Your task to perform on an android device: turn off data saver in the chrome app Image 0: 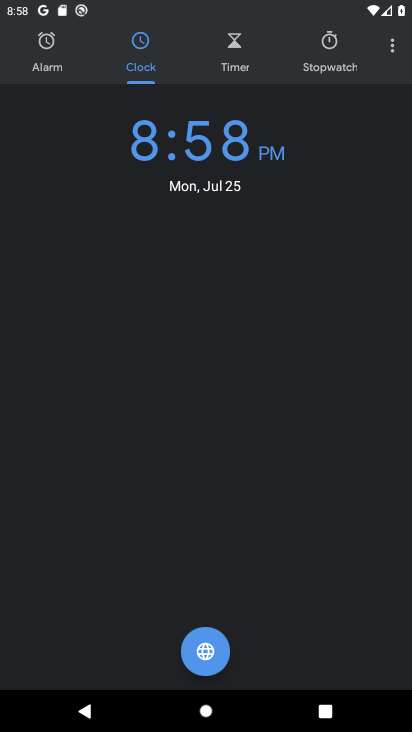
Step 0: press home button
Your task to perform on an android device: turn off data saver in the chrome app Image 1: 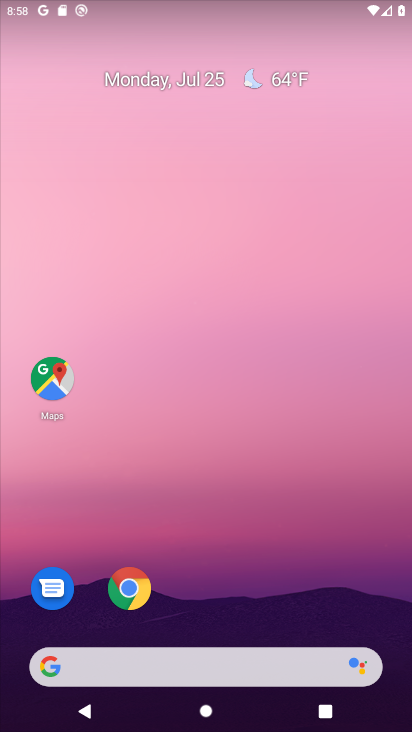
Step 1: click (149, 580)
Your task to perform on an android device: turn off data saver in the chrome app Image 2: 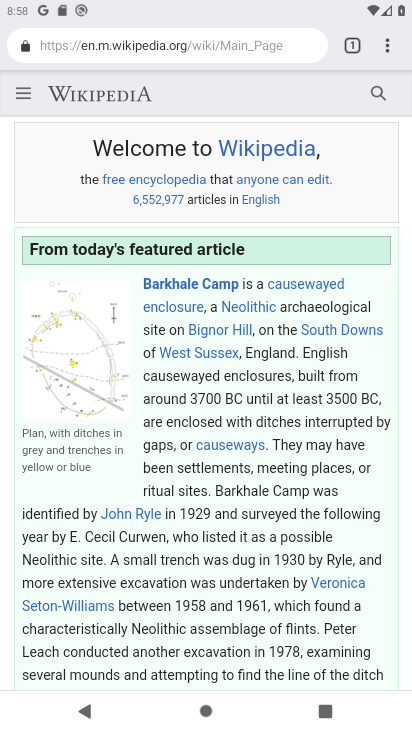
Step 2: drag from (385, 45) to (219, 552)
Your task to perform on an android device: turn off data saver in the chrome app Image 3: 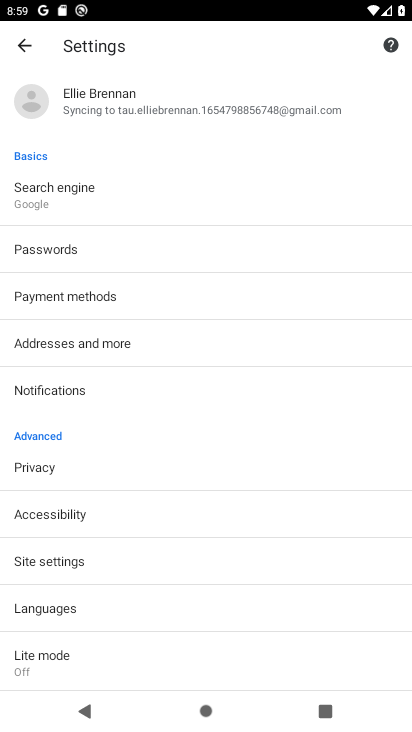
Step 3: click (73, 653)
Your task to perform on an android device: turn off data saver in the chrome app Image 4: 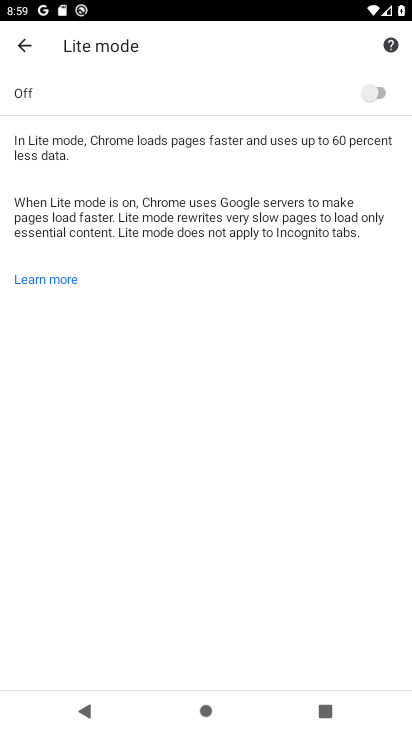
Step 4: task complete